Your task to perform on an android device: Open CNN.com Image 0: 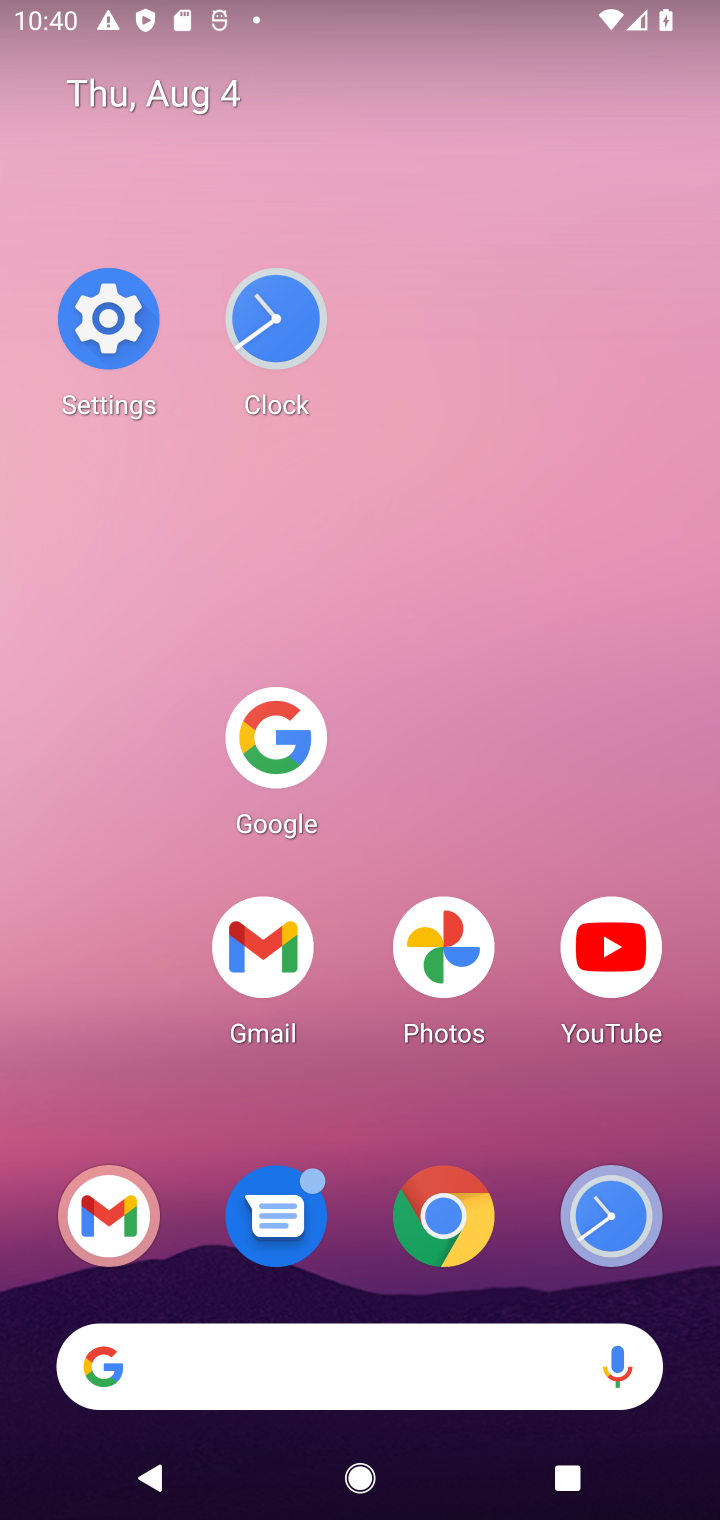
Step 0: click (430, 1230)
Your task to perform on an android device: Open CNN.com Image 1: 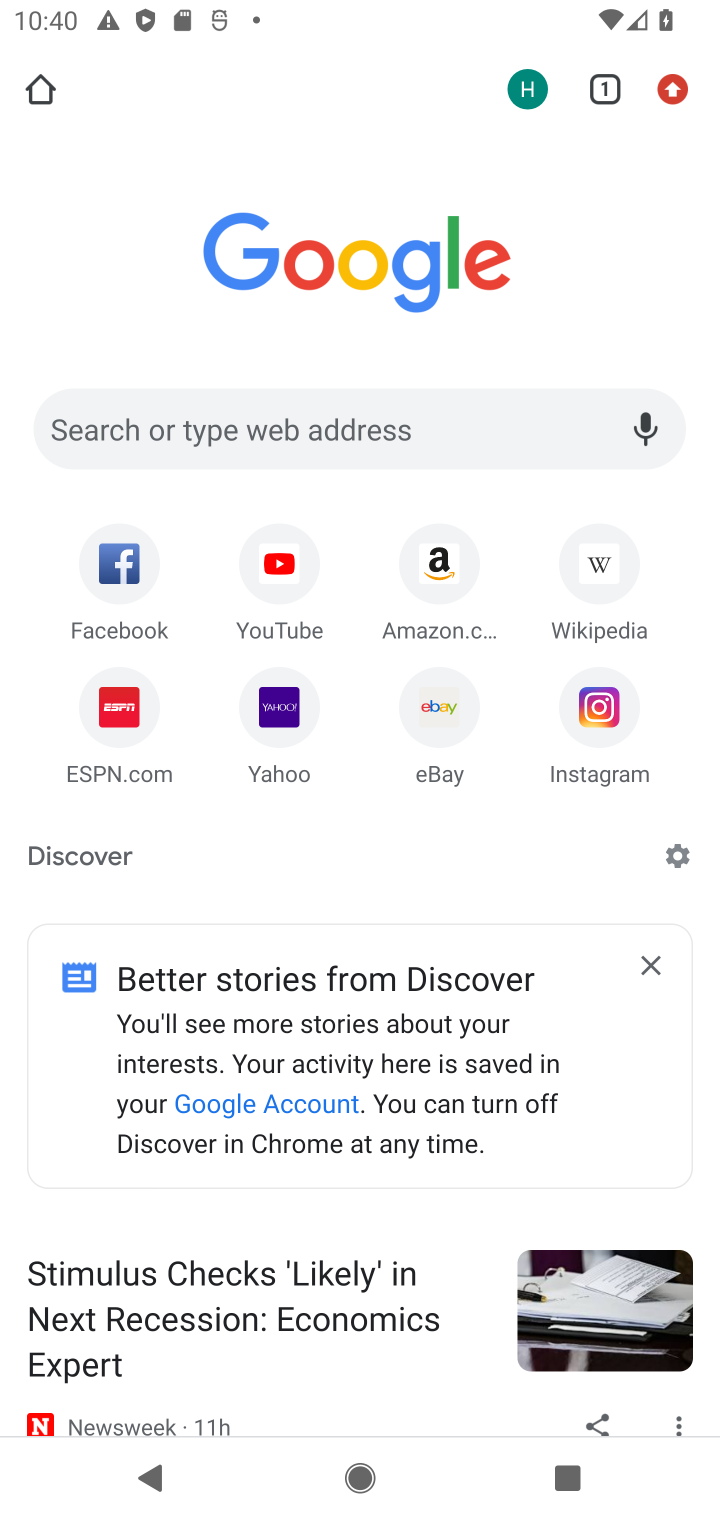
Step 1: click (441, 425)
Your task to perform on an android device: Open CNN.com Image 2: 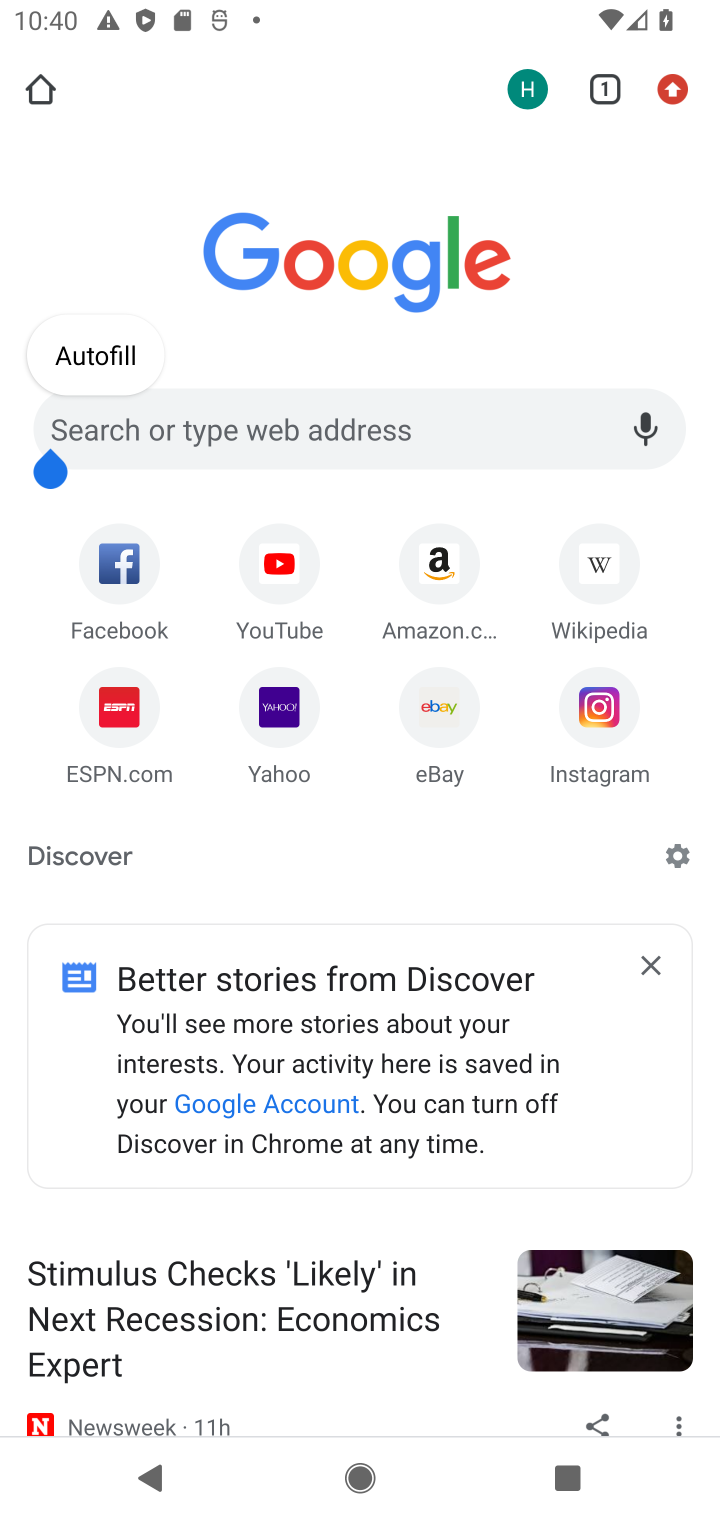
Step 2: click (441, 425)
Your task to perform on an android device: Open CNN.com Image 3: 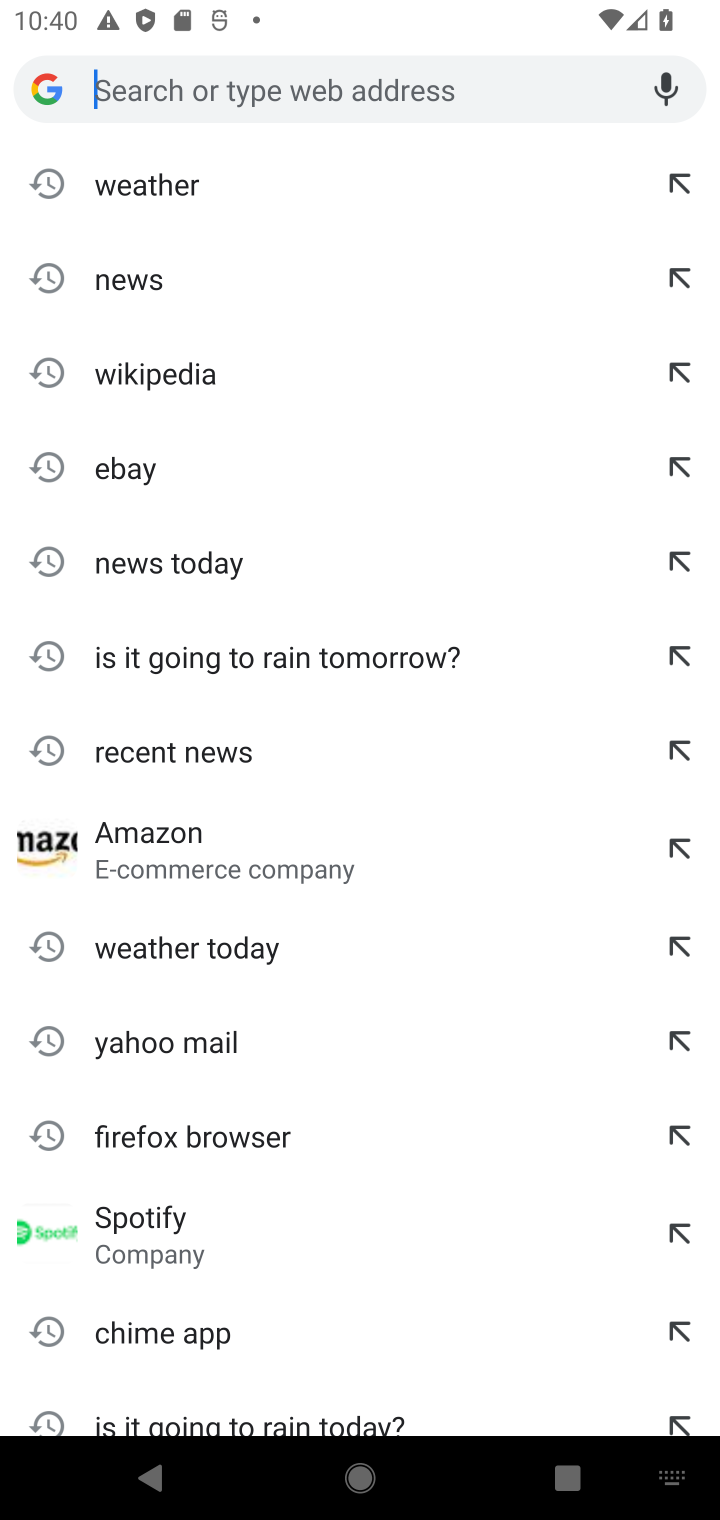
Step 3: type "cnn"
Your task to perform on an android device: Open CNN.com Image 4: 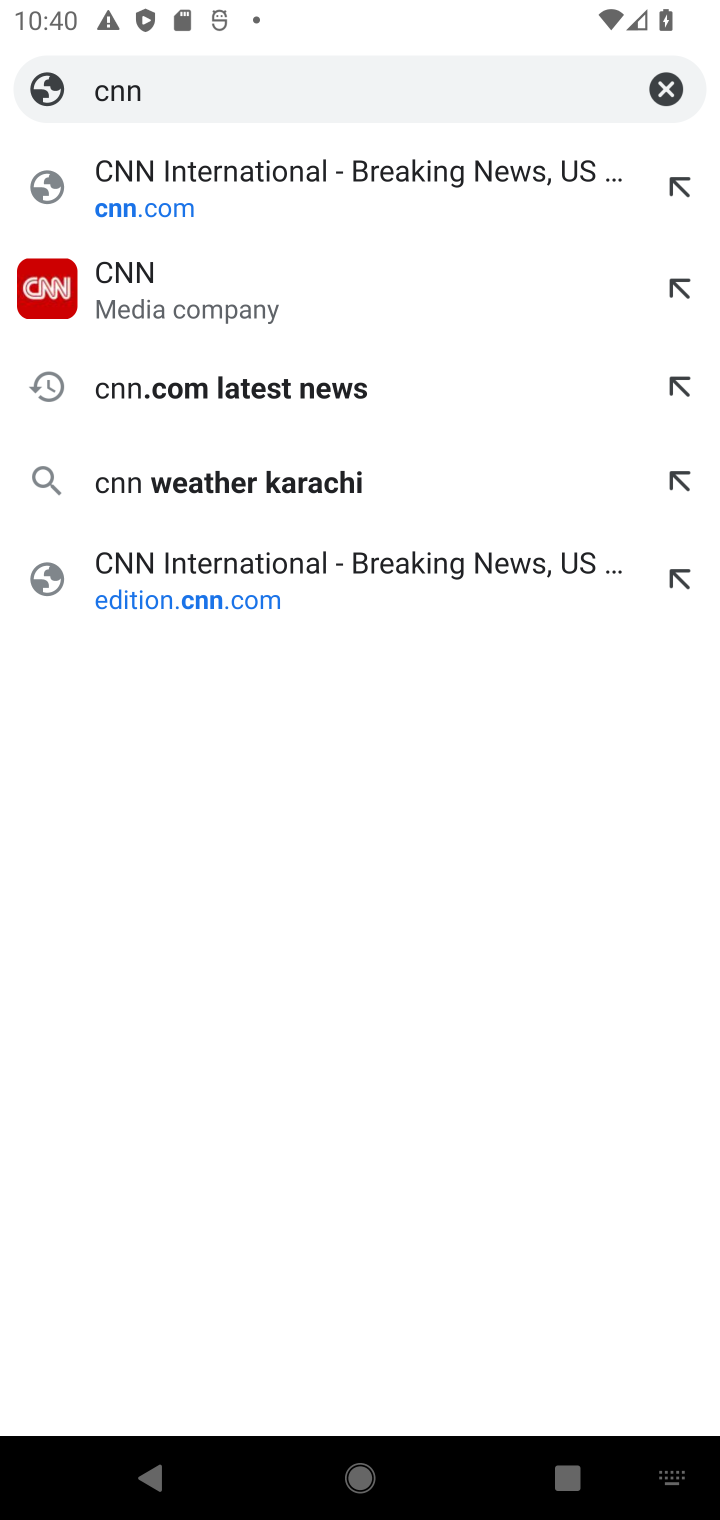
Step 4: click (402, 205)
Your task to perform on an android device: Open CNN.com Image 5: 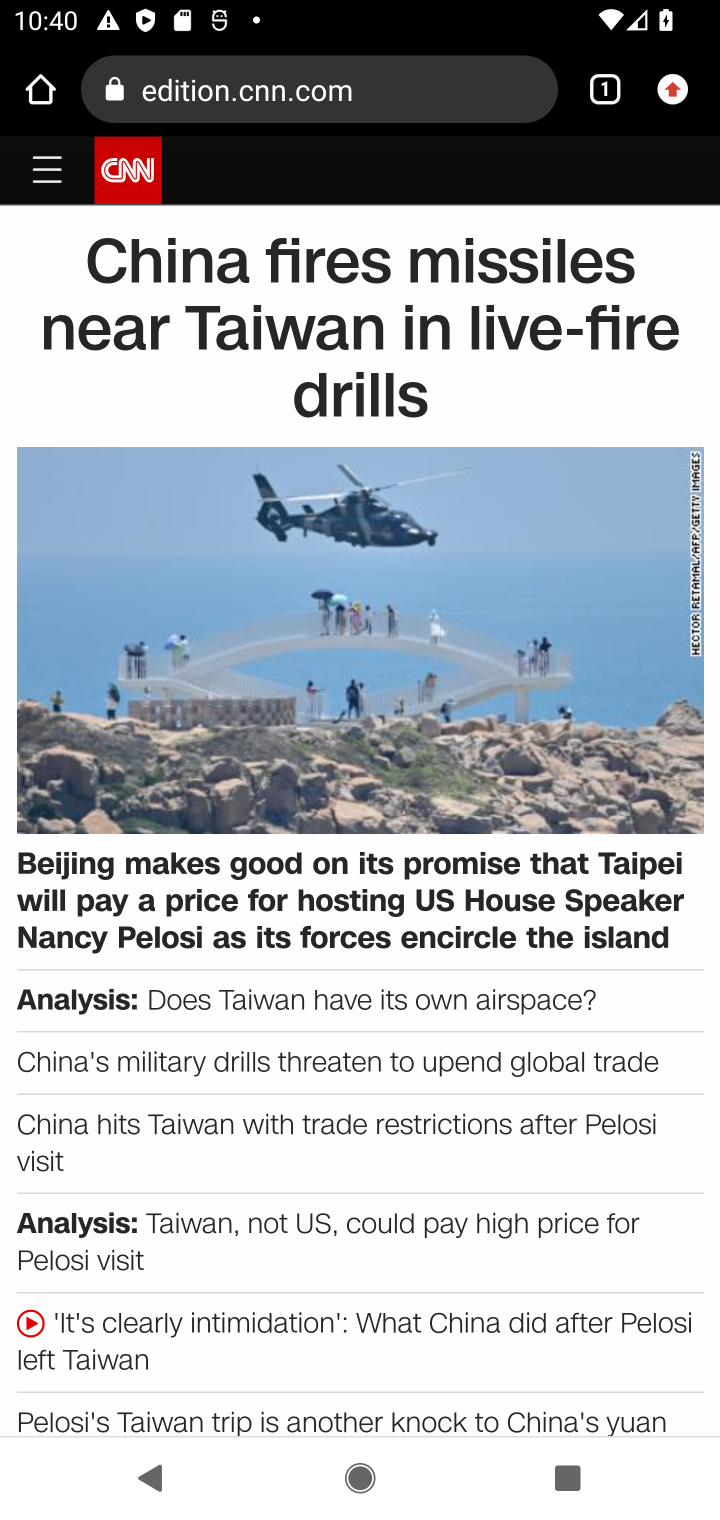
Step 5: task complete